Your task to perform on an android device: Show me popular videos on Youtube Image 0: 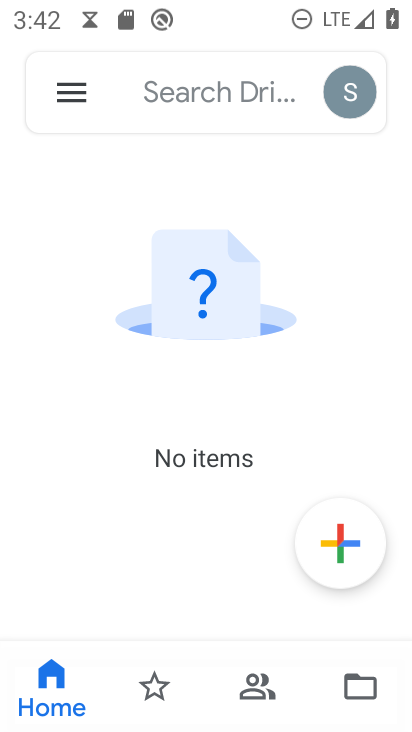
Step 0: press home button
Your task to perform on an android device: Show me popular videos on Youtube Image 1: 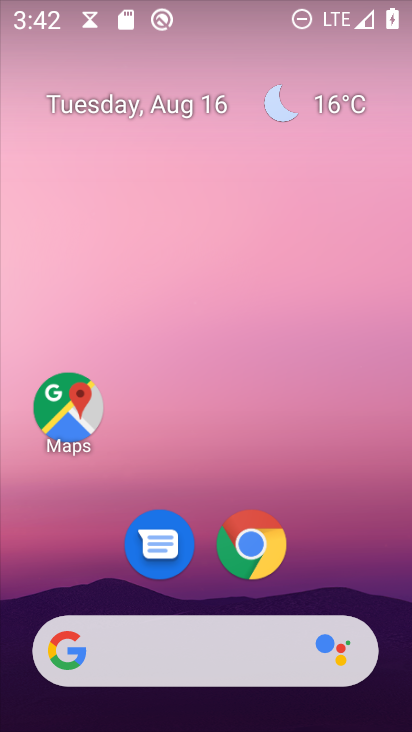
Step 1: drag from (177, 669) to (246, 112)
Your task to perform on an android device: Show me popular videos on Youtube Image 2: 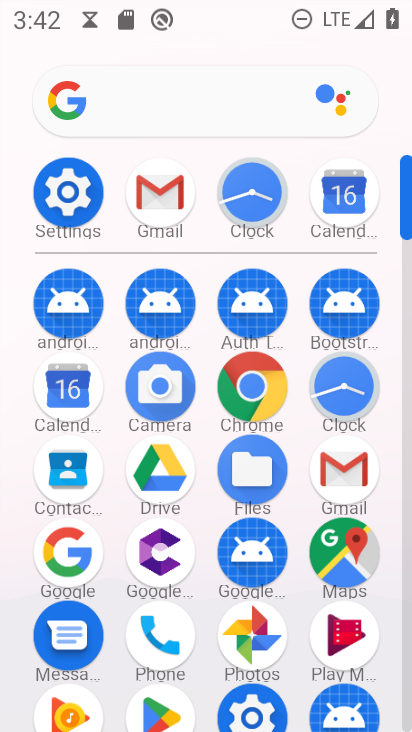
Step 2: drag from (197, 516) to (170, 215)
Your task to perform on an android device: Show me popular videos on Youtube Image 3: 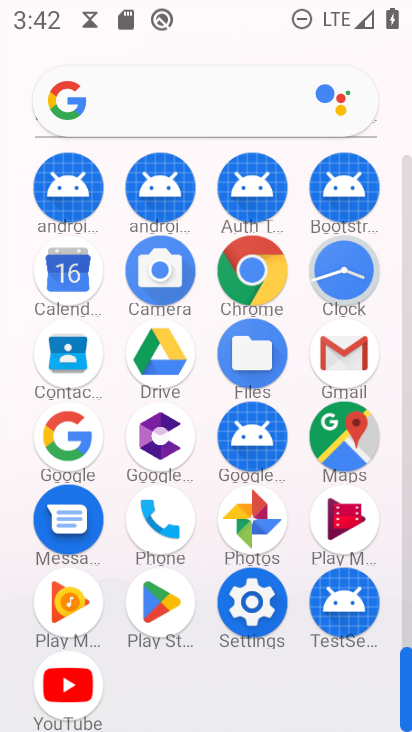
Step 3: click (67, 689)
Your task to perform on an android device: Show me popular videos on Youtube Image 4: 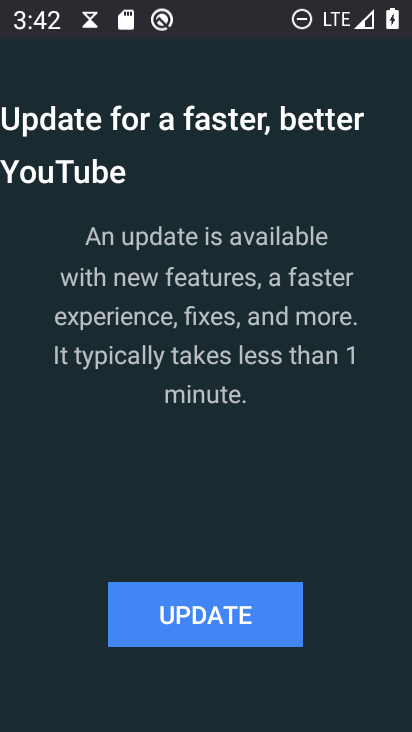
Step 4: click (200, 615)
Your task to perform on an android device: Show me popular videos on Youtube Image 5: 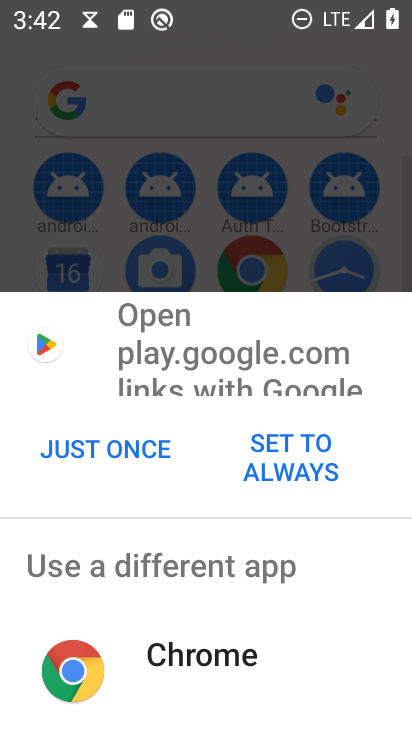
Step 5: click (121, 447)
Your task to perform on an android device: Show me popular videos on Youtube Image 6: 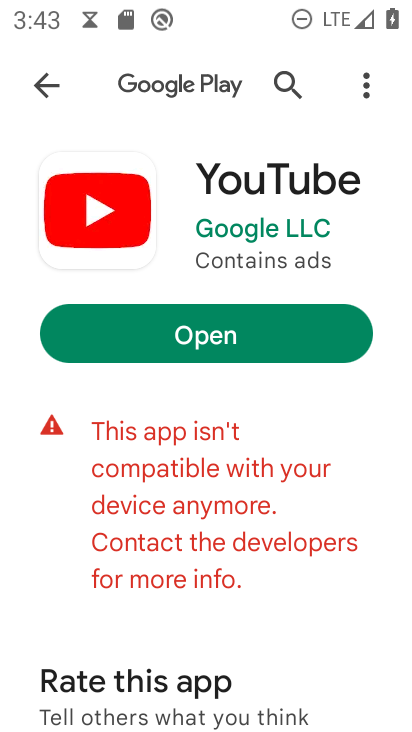
Step 6: click (208, 345)
Your task to perform on an android device: Show me popular videos on Youtube Image 7: 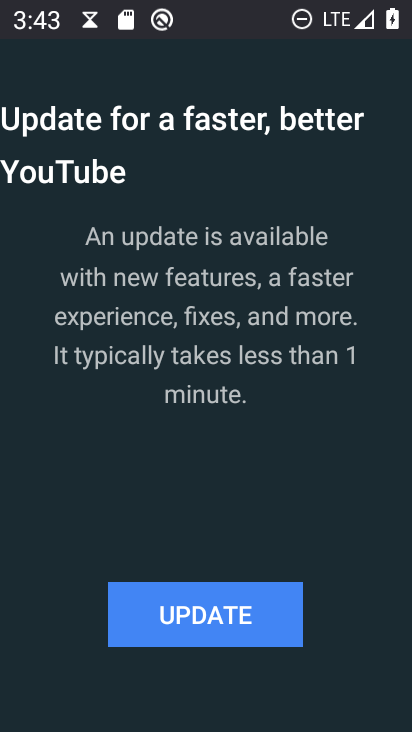
Step 7: click (189, 603)
Your task to perform on an android device: Show me popular videos on Youtube Image 8: 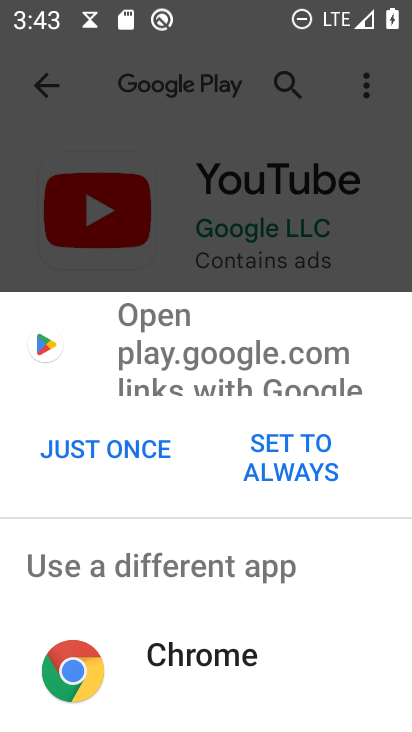
Step 8: click (169, 362)
Your task to perform on an android device: Show me popular videos on Youtube Image 9: 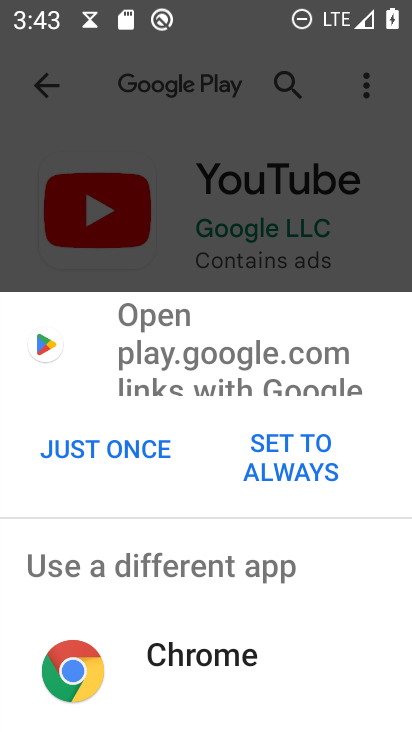
Step 9: click (112, 449)
Your task to perform on an android device: Show me popular videos on Youtube Image 10: 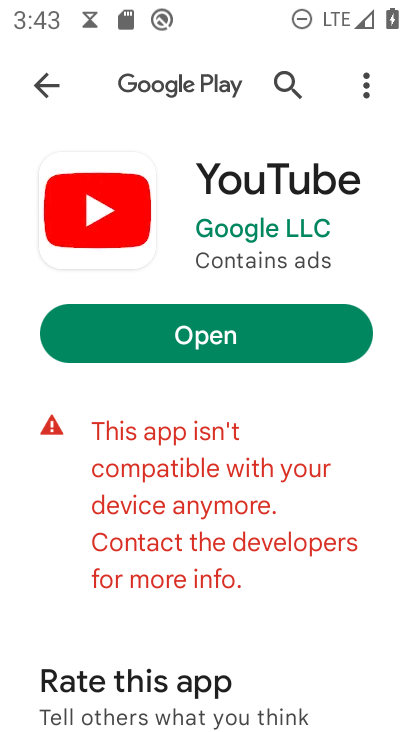
Step 10: click (178, 344)
Your task to perform on an android device: Show me popular videos on Youtube Image 11: 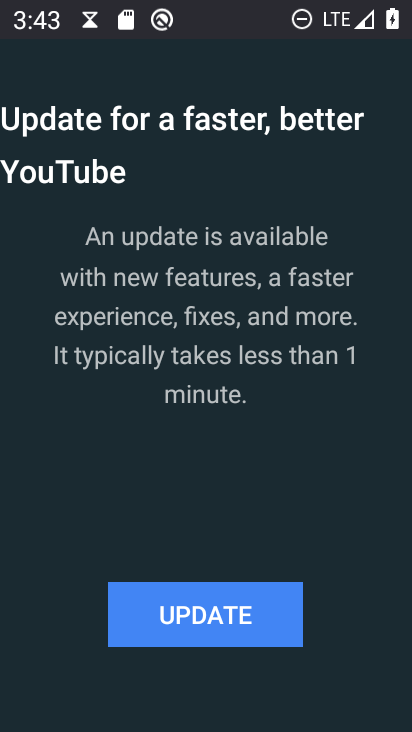
Step 11: click (210, 610)
Your task to perform on an android device: Show me popular videos on Youtube Image 12: 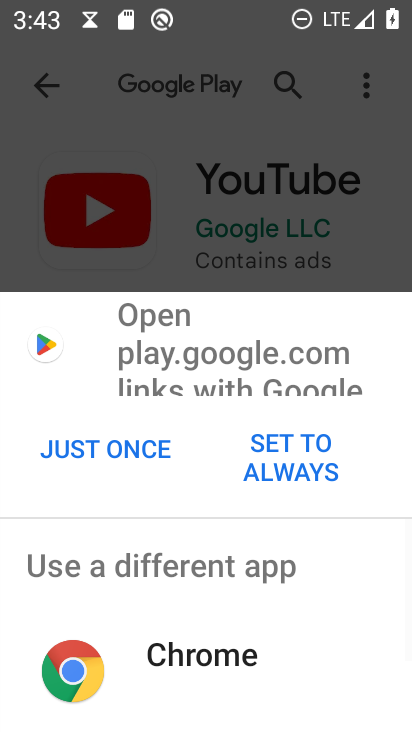
Step 12: drag from (205, 679) to (217, 398)
Your task to perform on an android device: Show me popular videos on Youtube Image 13: 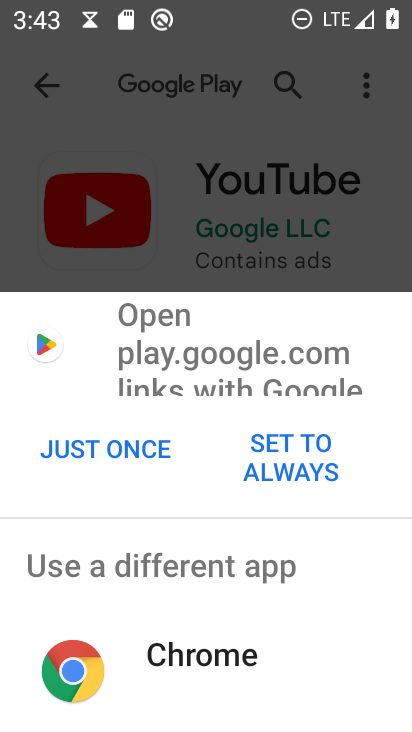
Step 13: click (122, 443)
Your task to perform on an android device: Show me popular videos on Youtube Image 14: 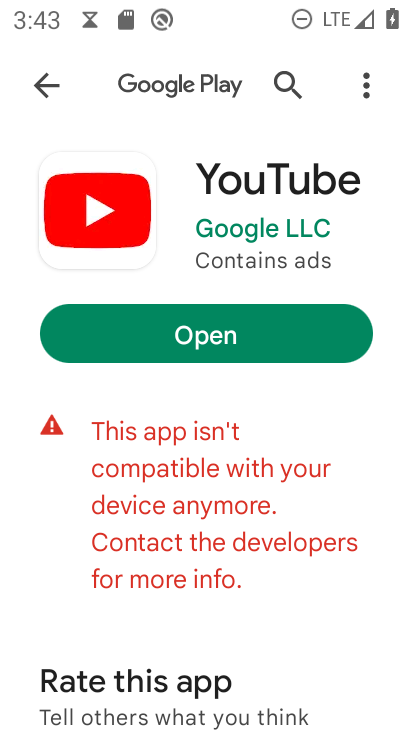
Step 14: click (196, 340)
Your task to perform on an android device: Show me popular videos on Youtube Image 15: 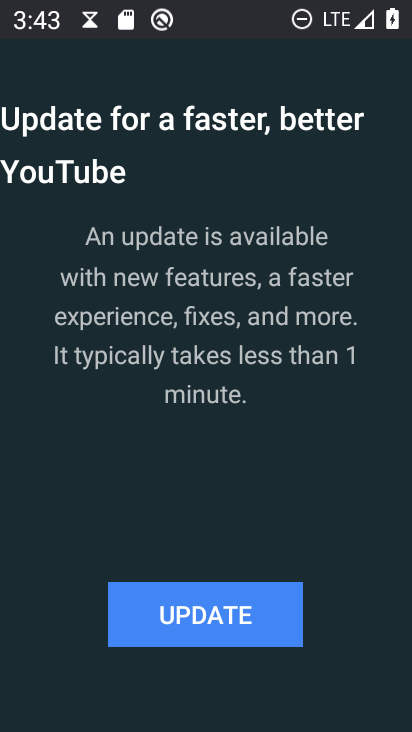
Step 15: click (208, 626)
Your task to perform on an android device: Show me popular videos on Youtube Image 16: 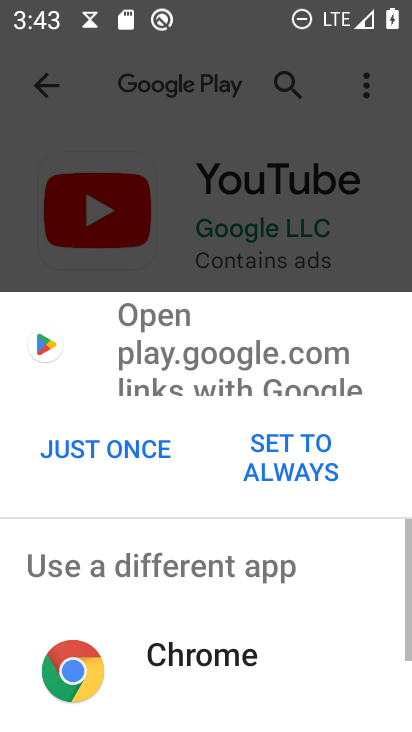
Step 16: click (104, 447)
Your task to perform on an android device: Show me popular videos on Youtube Image 17: 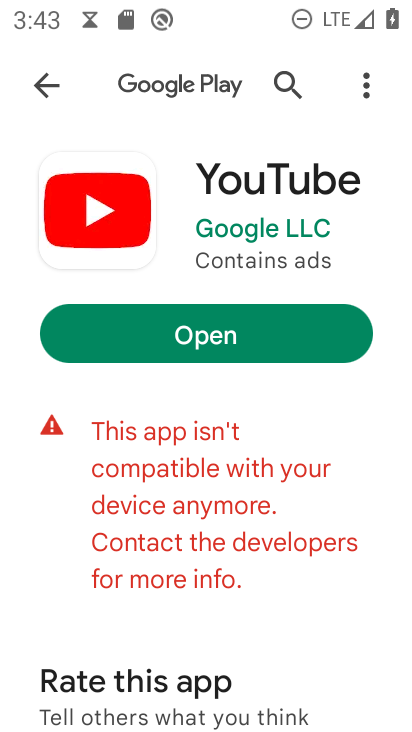
Step 17: click (253, 178)
Your task to perform on an android device: Show me popular videos on Youtube Image 18: 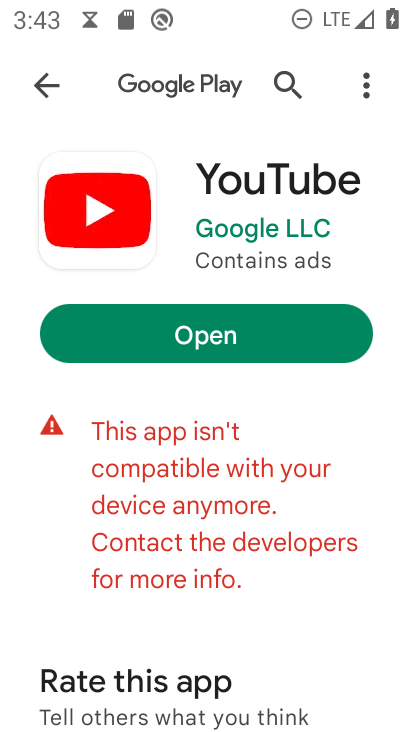
Step 18: click (105, 208)
Your task to perform on an android device: Show me popular videos on Youtube Image 19: 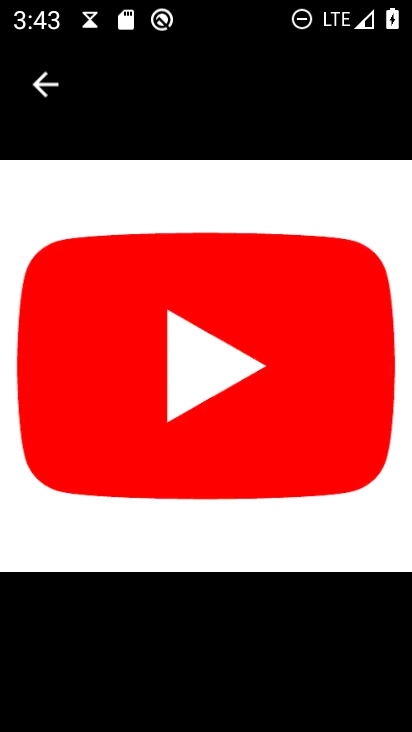
Step 19: click (54, 96)
Your task to perform on an android device: Show me popular videos on Youtube Image 20: 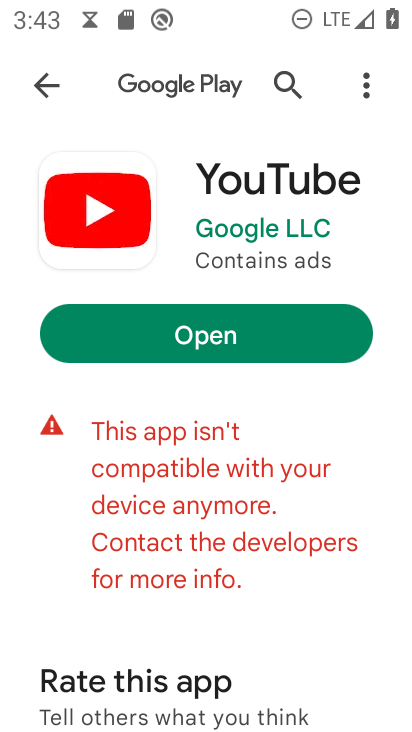
Step 20: click (268, 168)
Your task to perform on an android device: Show me popular videos on Youtube Image 21: 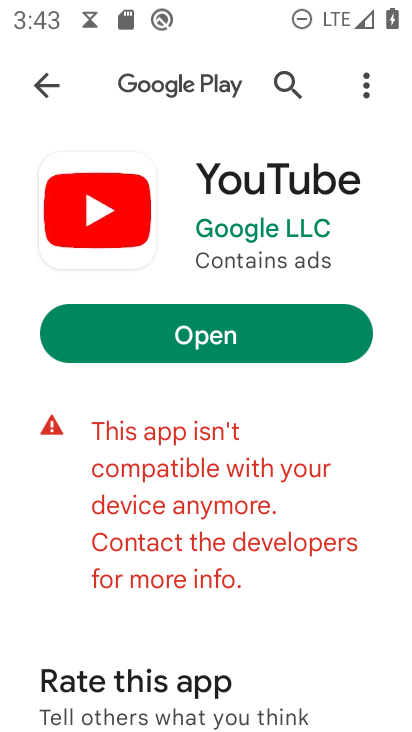
Step 21: click (341, 183)
Your task to perform on an android device: Show me popular videos on Youtube Image 22: 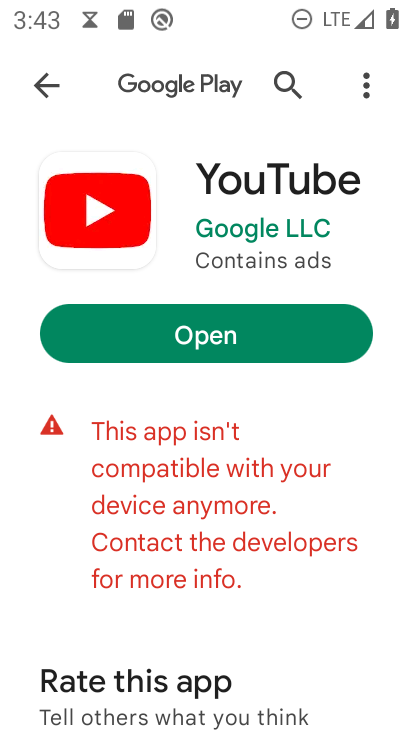
Step 22: click (322, 240)
Your task to perform on an android device: Show me popular videos on Youtube Image 23: 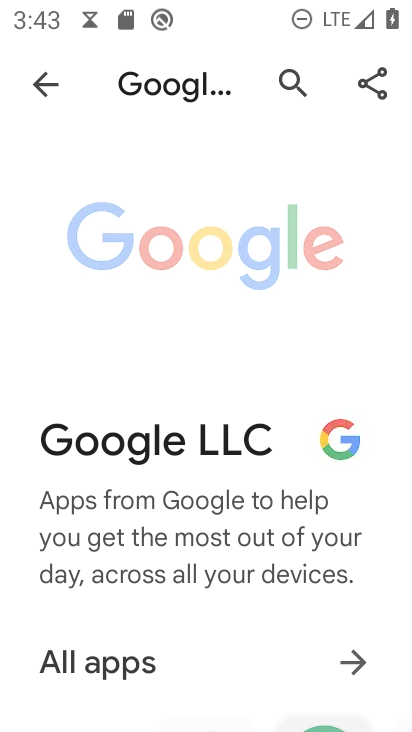
Step 23: drag from (231, 572) to (246, 412)
Your task to perform on an android device: Show me popular videos on Youtube Image 24: 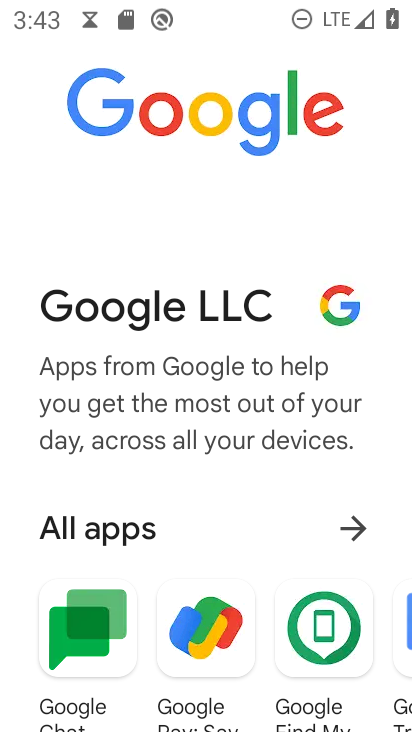
Step 24: drag from (215, 500) to (284, 195)
Your task to perform on an android device: Show me popular videos on Youtube Image 25: 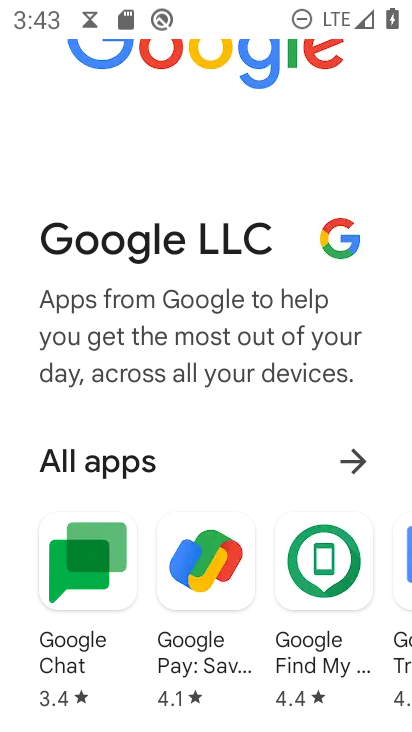
Step 25: press back button
Your task to perform on an android device: Show me popular videos on Youtube Image 26: 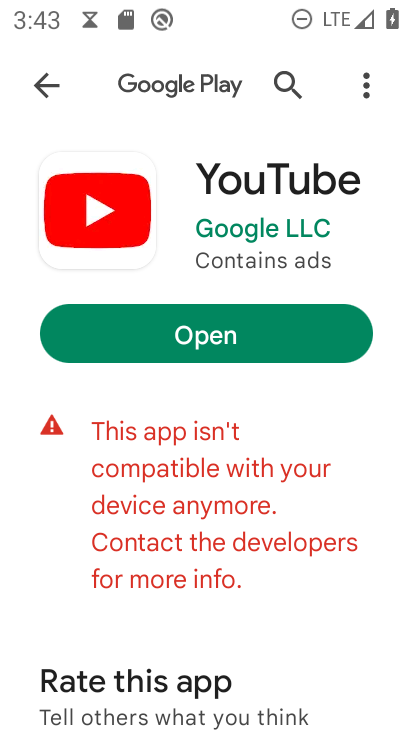
Step 26: drag from (226, 568) to (295, 232)
Your task to perform on an android device: Show me popular videos on Youtube Image 27: 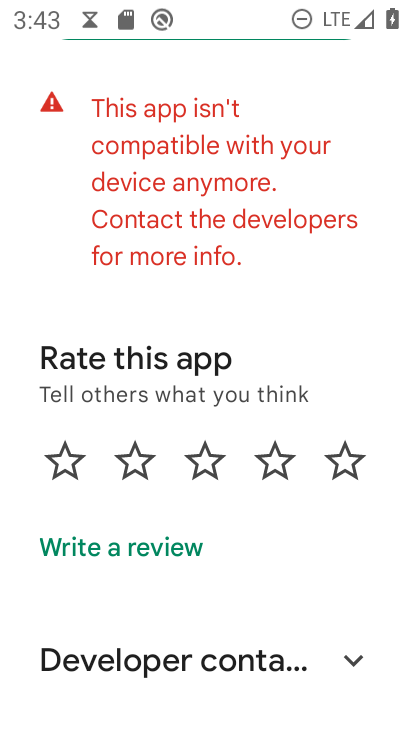
Step 27: drag from (233, 570) to (277, 213)
Your task to perform on an android device: Show me popular videos on Youtube Image 28: 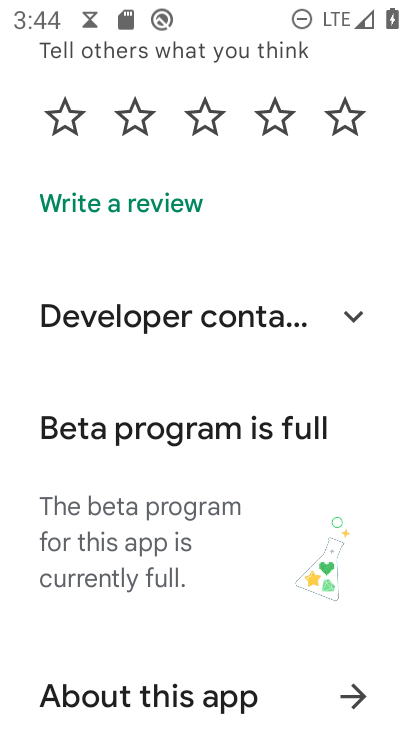
Step 28: drag from (194, 601) to (280, 251)
Your task to perform on an android device: Show me popular videos on Youtube Image 29: 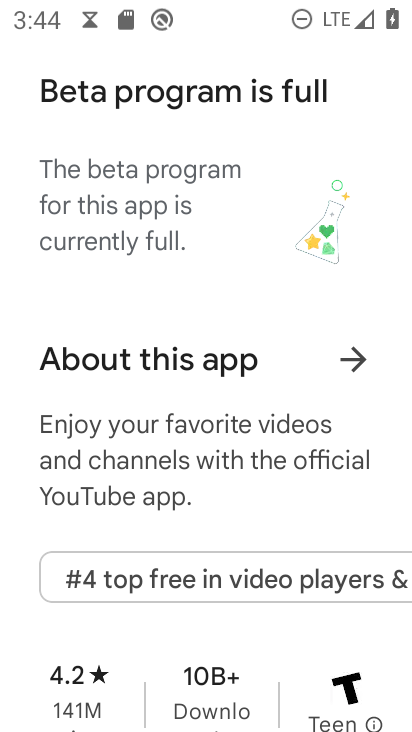
Step 29: drag from (175, 622) to (278, 310)
Your task to perform on an android device: Show me popular videos on Youtube Image 30: 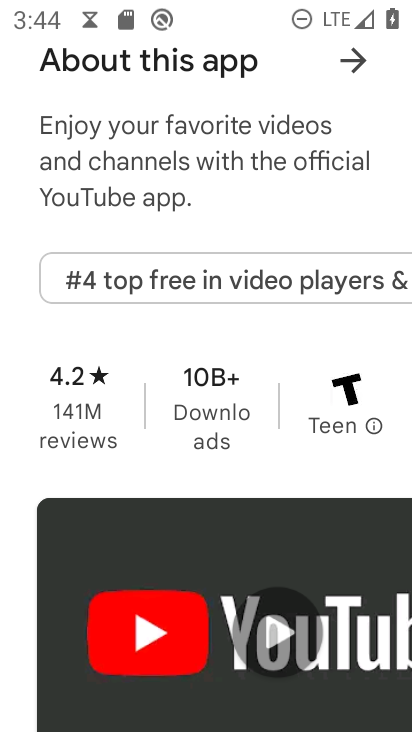
Step 30: drag from (248, 244) to (281, 600)
Your task to perform on an android device: Show me popular videos on Youtube Image 31: 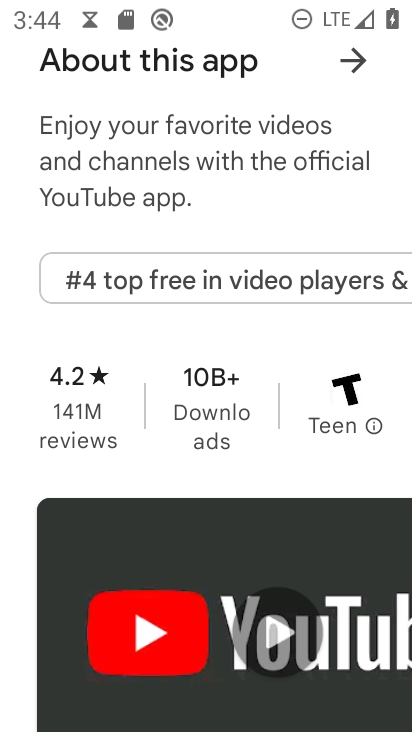
Step 31: drag from (191, 102) to (240, 429)
Your task to perform on an android device: Show me popular videos on Youtube Image 32: 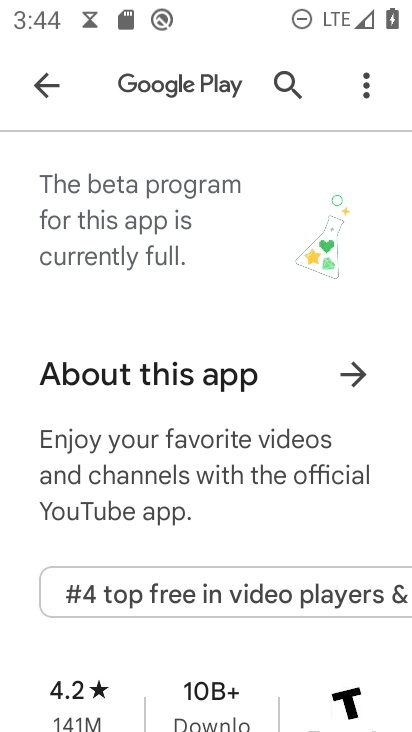
Step 32: drag from (192, 199) to (194, 506)
Your task to perform on an android device: Show me popular videos on Youtube Image 33: 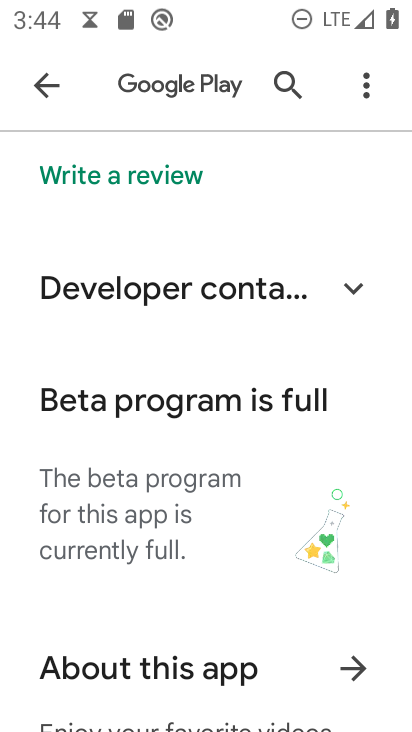
Step 33: drag from (192, 253) to (208, 563)
Your task to perform on an android device: Show me popular videos on Youtube Image 34: 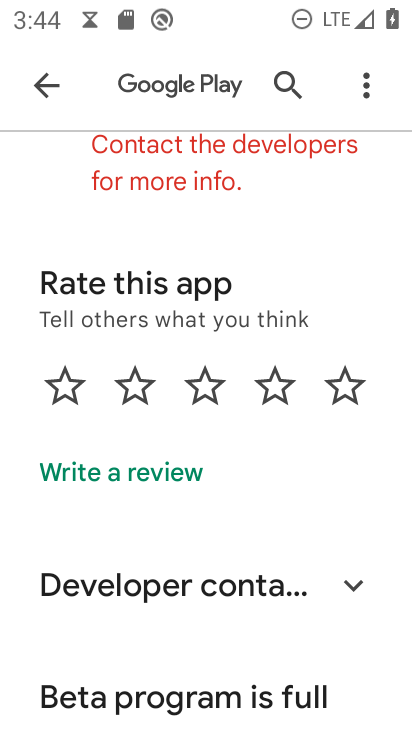
Step 34: drag from (185, 238) to (207, 716)
Your task to perform on an android device: Show me popular videos on Youtube Image 35: 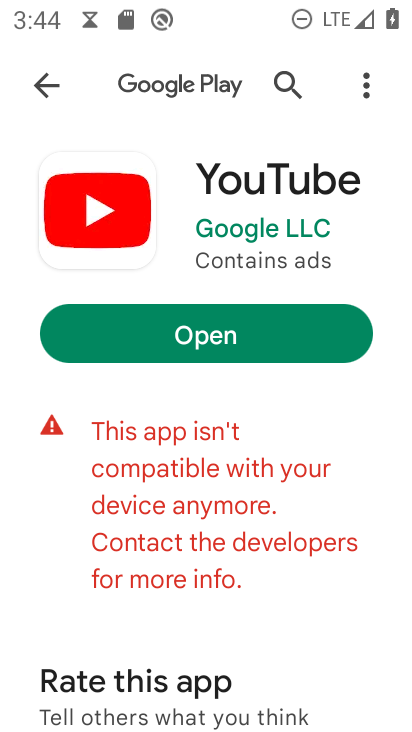
Step 35: click (245, 186)
Your task to perform on an android device: Show me popular videos on Youtube Image 36: 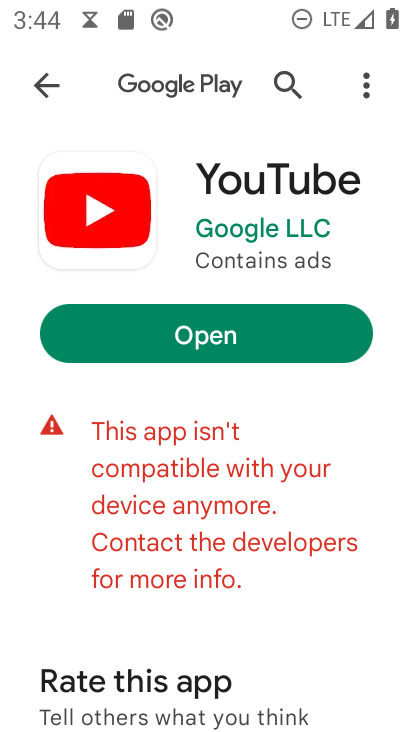
Step 36: click (323, 190)
Your task to perform on an android device: Show me popular videos on Youtube Image 37: 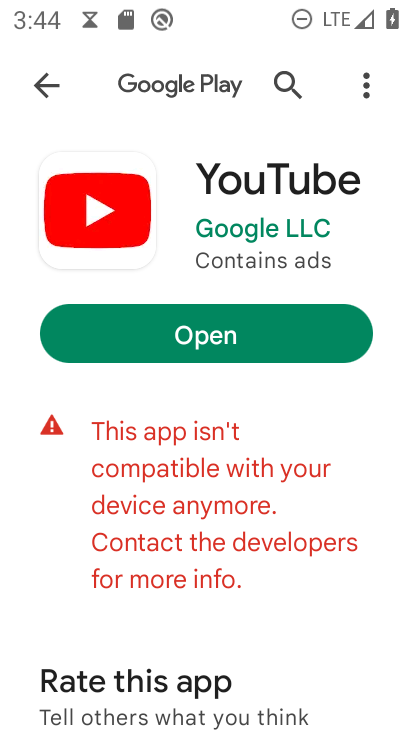
Step 37: click (323, 190)
Your task to perform on an android device: Show me popular videos on Youtube Image 38: 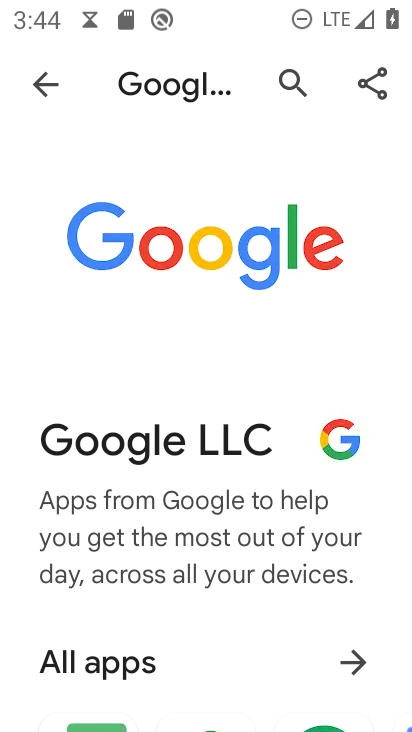
Step 38: drag from (348, 244) to (33, 281)
Your task to perform on an android device: Show me popular videos on Youtube Image 39: 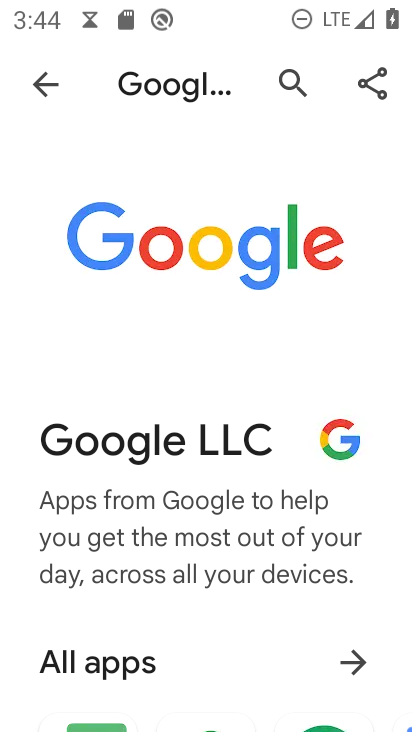
Step 39: press back button
Your task to perform on an android device: Show me popular videos on Youtube Image 40: 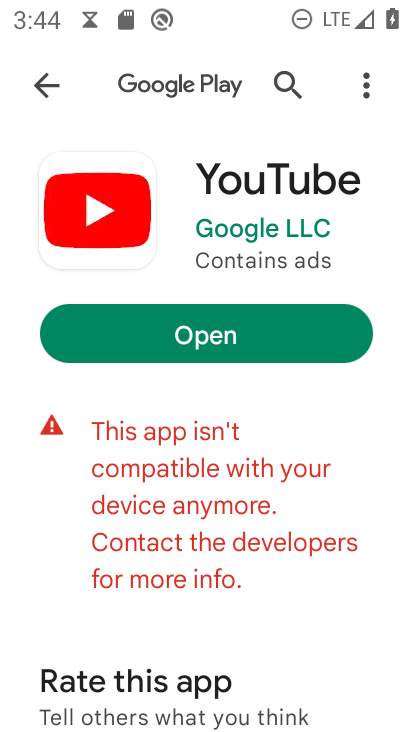
Step 40: click (191, 331)
Your task to perform on an android device: Show me popular videos on Youtube Image 41: 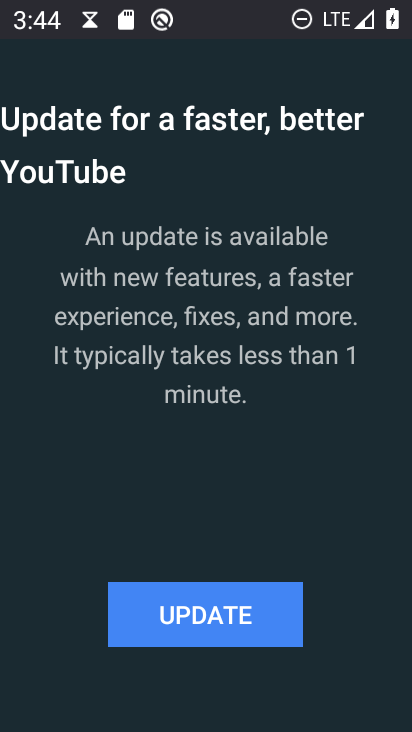
Step 41: click (195, 619)
Your task to perform on an android device: Show me popular videos on Youtube Image 42: 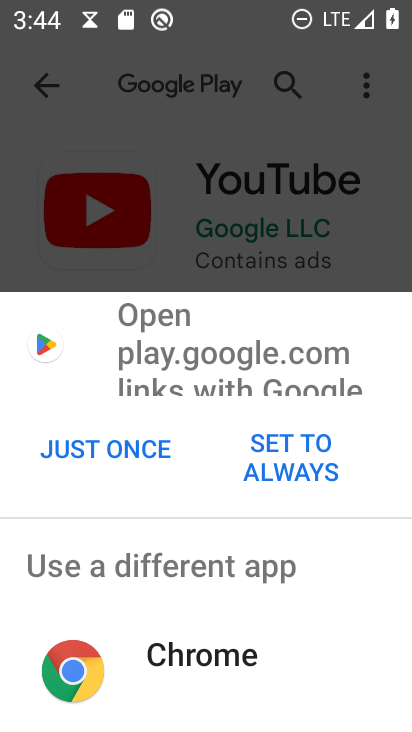
Step 42: click (192, 652)
Your task to perform on an android device: Show me popular videos on Youtube Image 43: 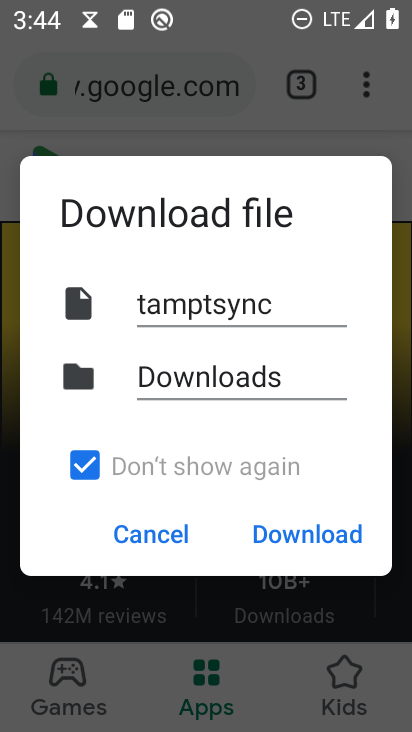
Step 43: click (173, 534)
Your task to perform on an android device: Show me popular videos on Youtube Image 44: 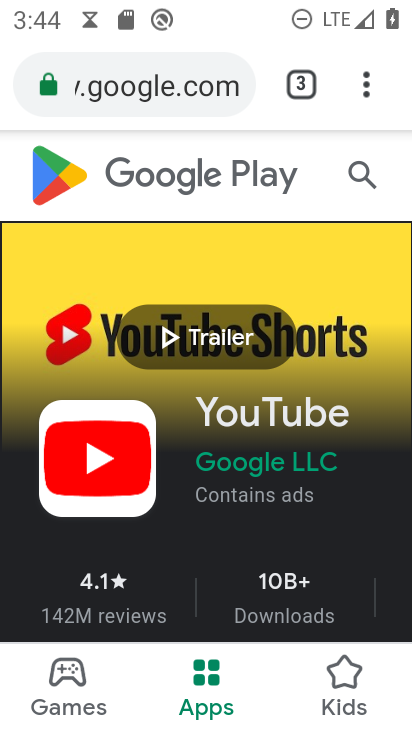
Step 44: drag from (191, 652) to (269, 282)
Your task to perform on an android device: Show me popular videos on Youtube Image 45: 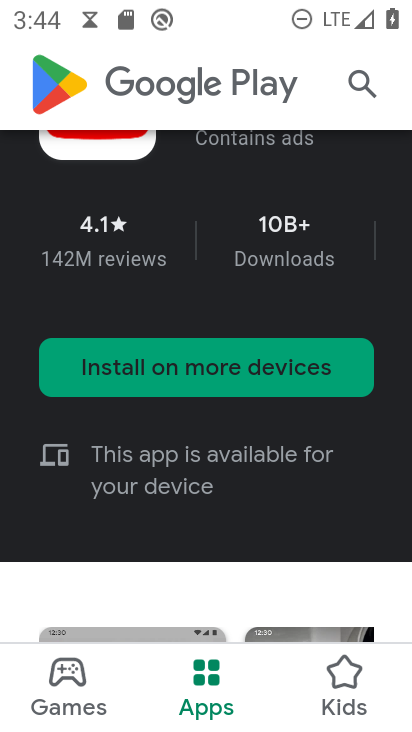
Step 45: click (209, 383)
Your task to perform on an android device: Show me popular videos on Youtube Image 46: 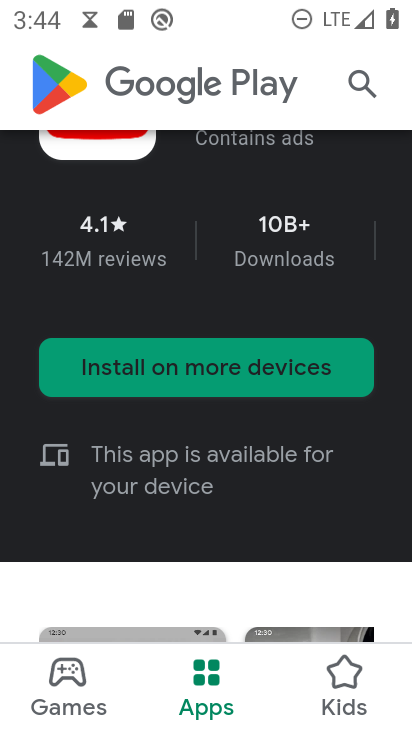
Step 46: click (201, 364)
Your task to perform on an android device: Show me popular videos on Youtube Image 47: 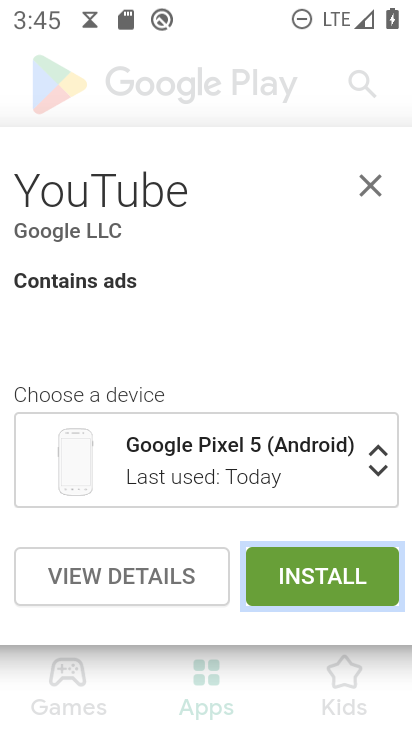
Step 47: click (301, 565)
Your task to perform on an android device: Show me popular videos on Youtube Image 48: 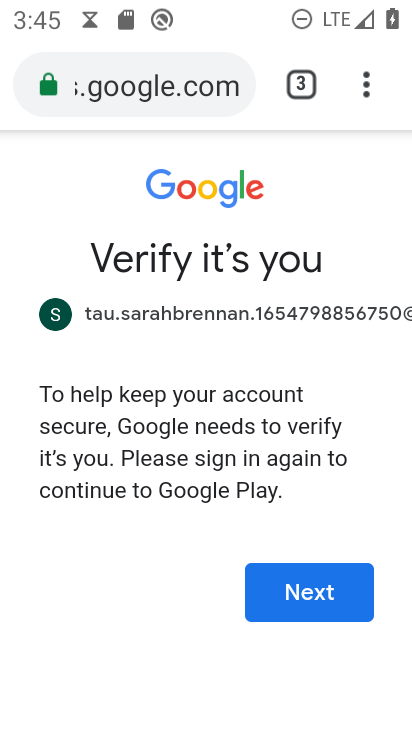
Step 48: click (307, 595)
Your task to perform on an android device: Show me popular videos on Youtube Image 49: 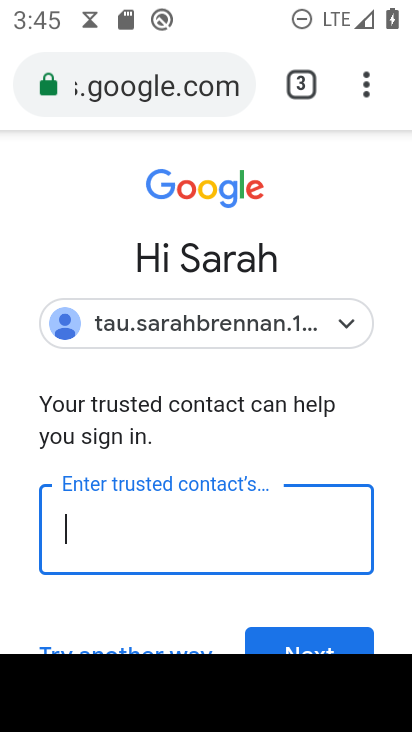
Step 49: drag from (207, 443) to (260, 253)
Your task to perform on an android device: Show me popular videos on Youtube Image 50: 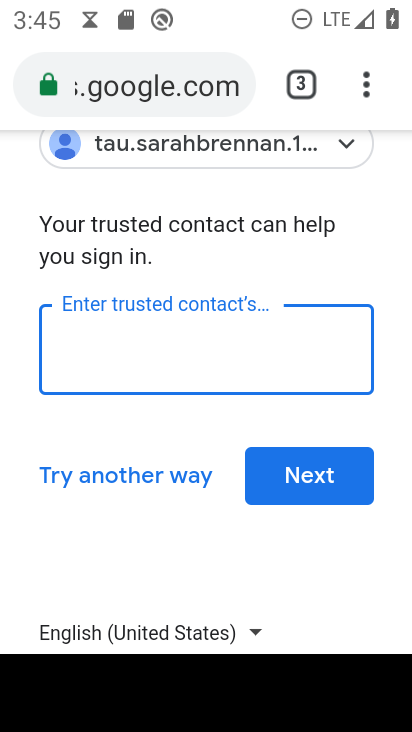
Step 50: click (332, 148)
Your task to perform on an android device: Show me popular videos on Youtube Image 51: 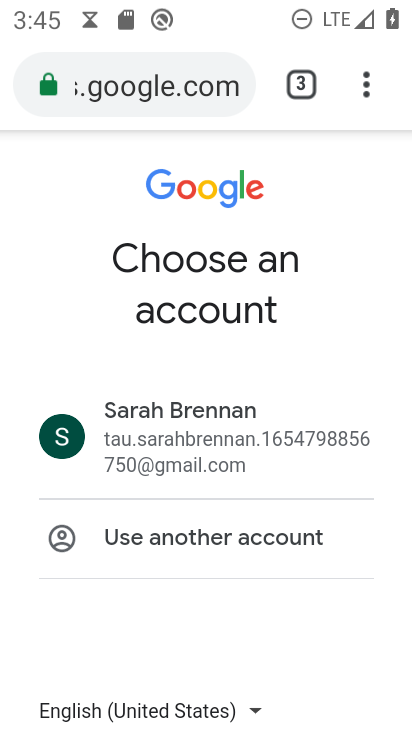
Step 51: click (173, 434)
Your task to perform on an android device: Show me popular videos on Youtube Image 52: 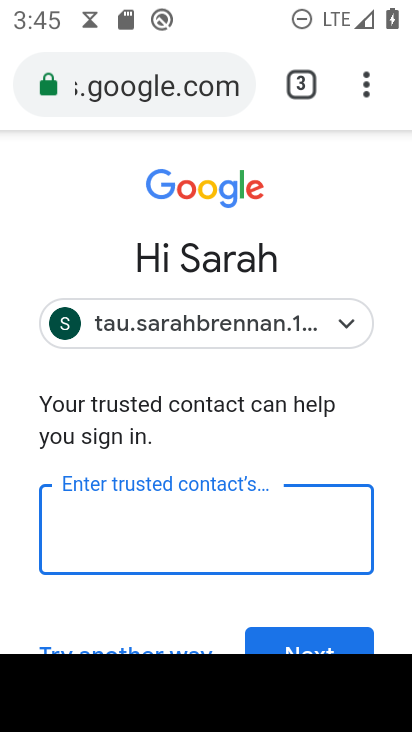
Step 52: click (324, 316)
Your task to perform on an android device: Show me popular videos on Youtube Image 53: 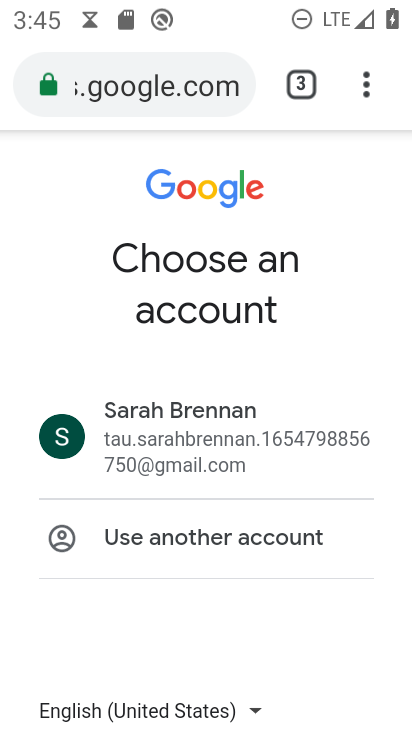
Step 53: drag from (190, 584) to (254, 289)
Your task to perform on an android device: Show me popular videos on Youtube Image 54: 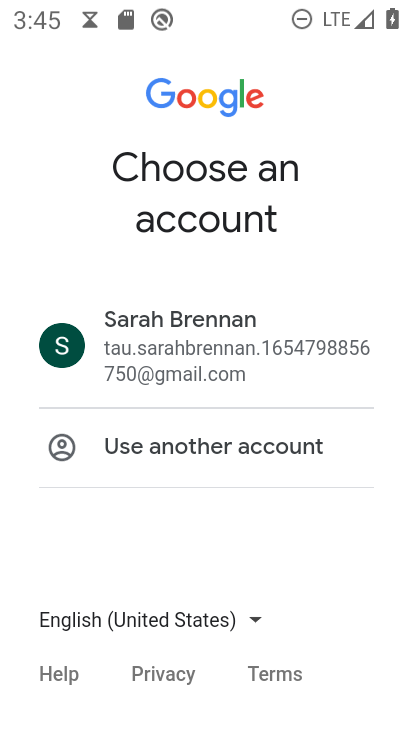
Step 54: drag from (260, 521) to (307, 259)
Your task to perform on an android device: Show me popular videos on Youtube Image 55: 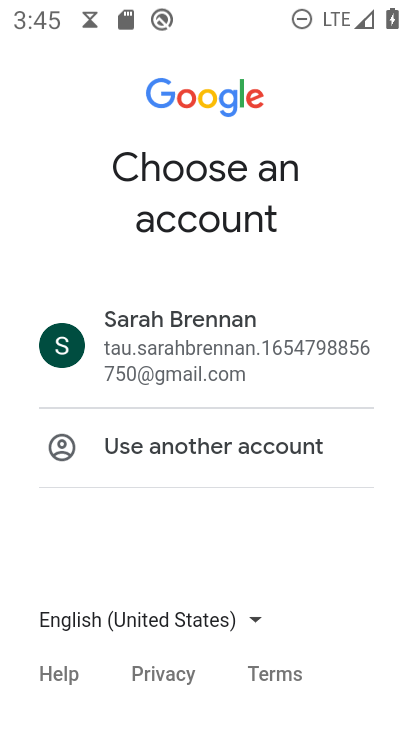
Step 55: press home button
Your task to perform on an android device: Show me popular videos on Youtube Image 56: 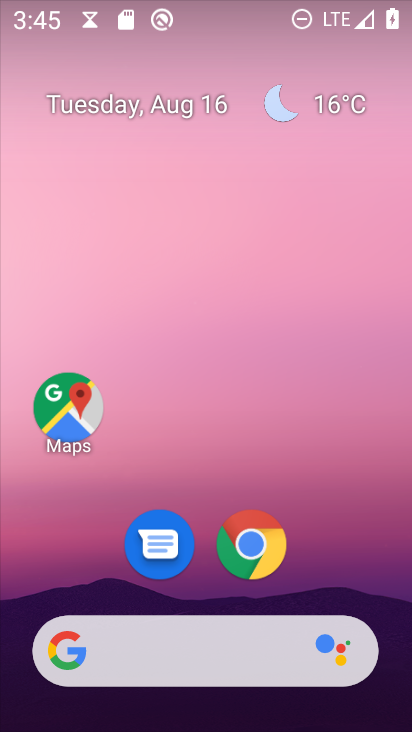
Step 56: drag from (187, 649) to (198, 67)
Your task to perform on an android device: Show me popular videos on Youtube Image 57: 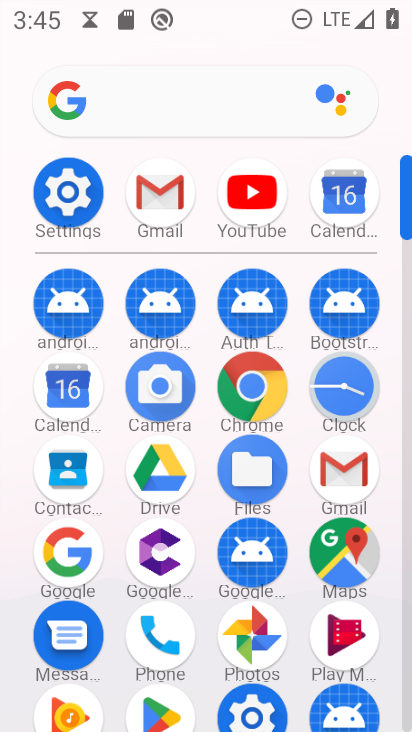
Step 57: click (252, 193)
Your task to perform on an android device: Show me popular videos on Youtube Image 58: 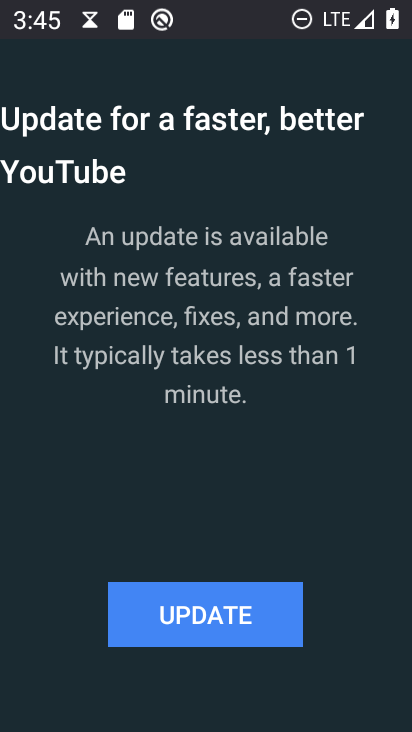
Step 58: click (206, 625)
Your task to perform on an android device: Show me popular videos on Youtube Image 59: 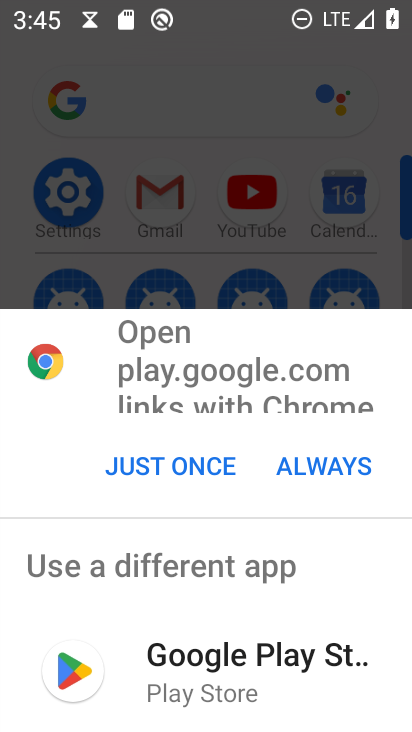
Step 59: click (192, 465)
Your task to perform on an android device: Show me popular videos on Youtube Image 60: 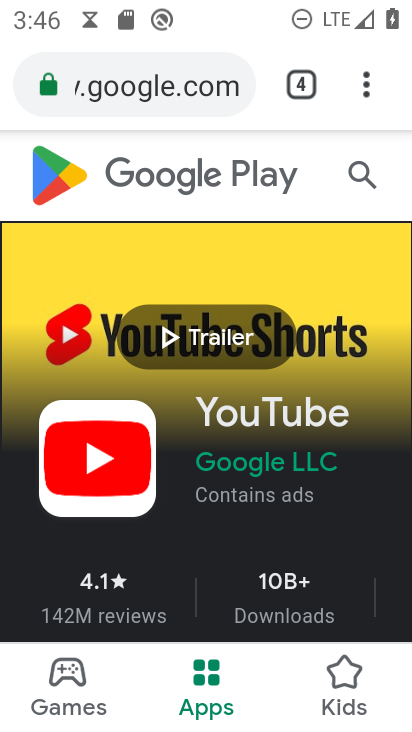
Step 60: press back button
Your task to perform on an android device: Show me popular videos on Youtube Image 61: 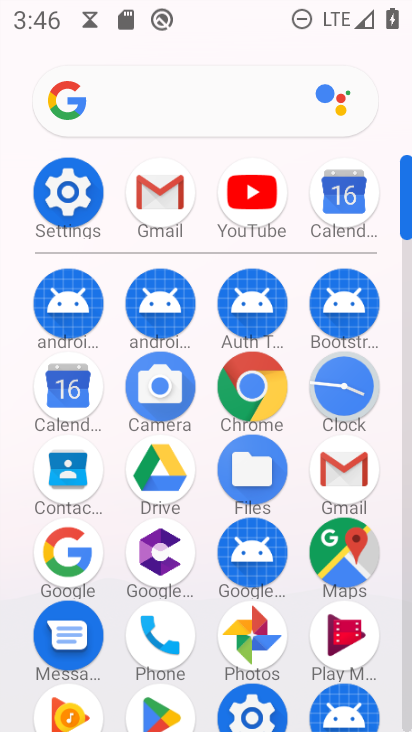
Step 61: click (253, 195)
Your task to perform on an android device: Show me popular videos on Youtube Image 62: 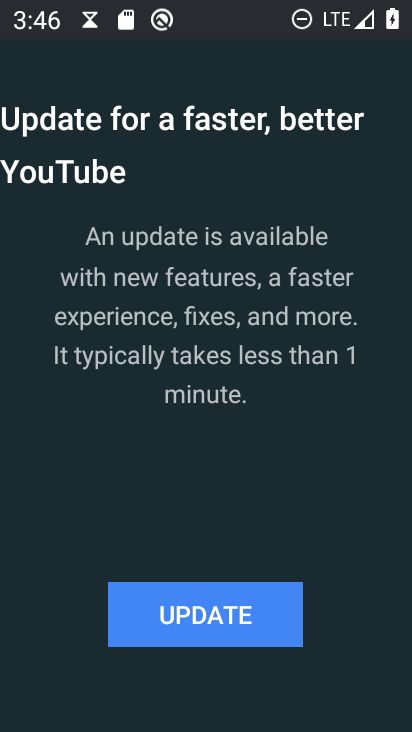
Step 62: click (220, 642)
Your task to perform on an android device: Show me popular videos on Youtube Image 63: 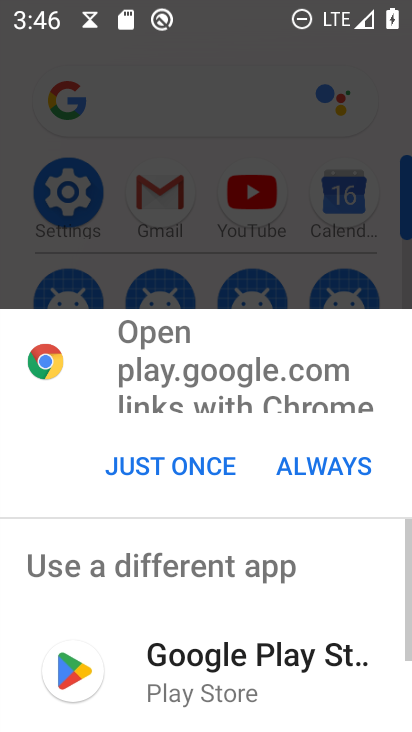
Step 63: click (198, 653)
Your task to perform on an android device: Show me popular videos on Youtube Image 64: 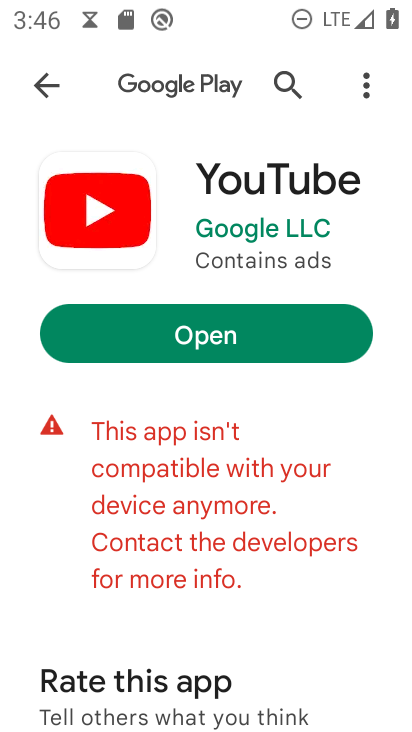
Step 64: click (190, 317)
Your task to perform on an android device: Show me popular videos on Youtube Image 65: 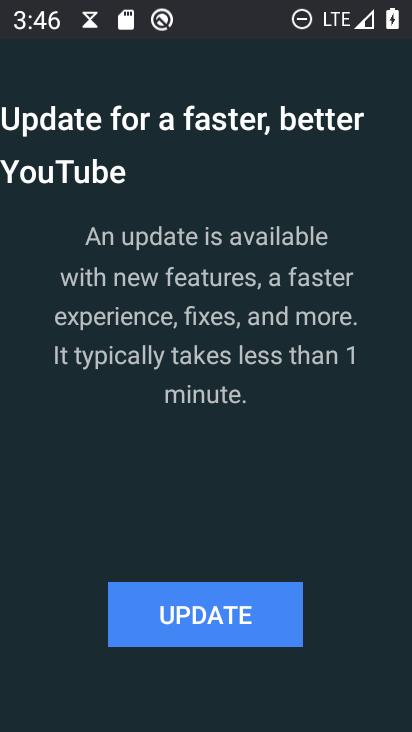
Step 65: task complete